Your task to perform on an android device: Open eBay Image 0: 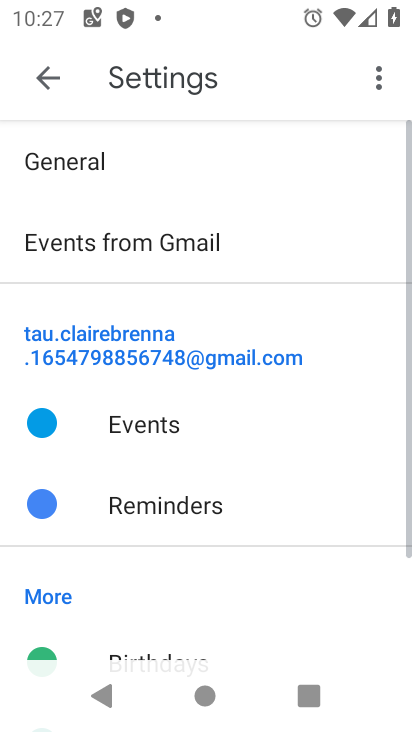
Step 0: press home button
Your task to perform on an android device: Open eBay Image 1: 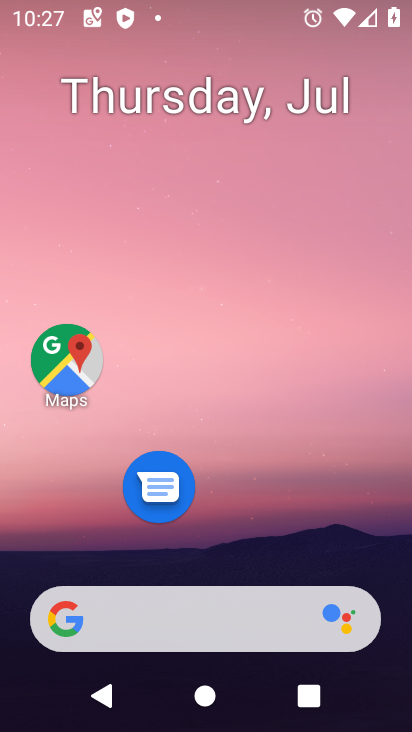
Step 1: drag from (261, 626) to (291, 120)
Your task to perform on an android device: Open eBay Image 2: 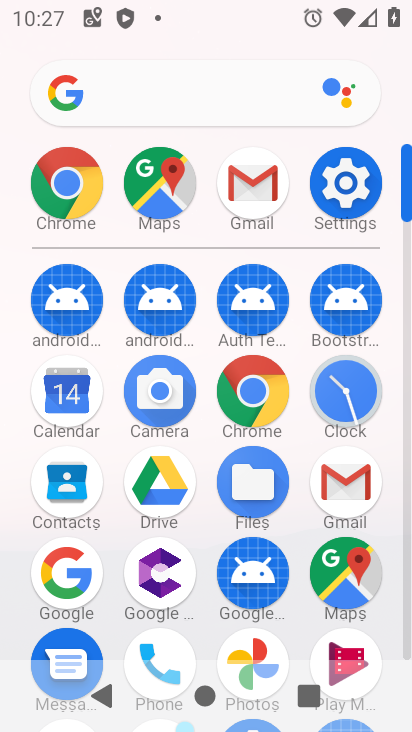
Step 2: click (88, 200)
Your task to perform on an android device: Open eBay Image 3: 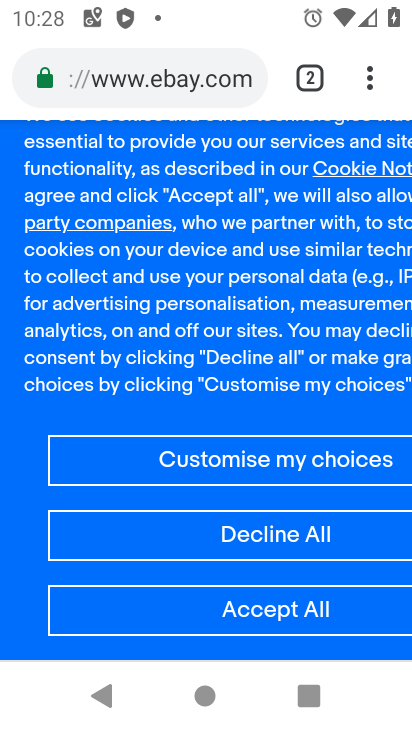
Step 3: task complete